Your task to perform on an android device: clear history in the chrome app Image 0: 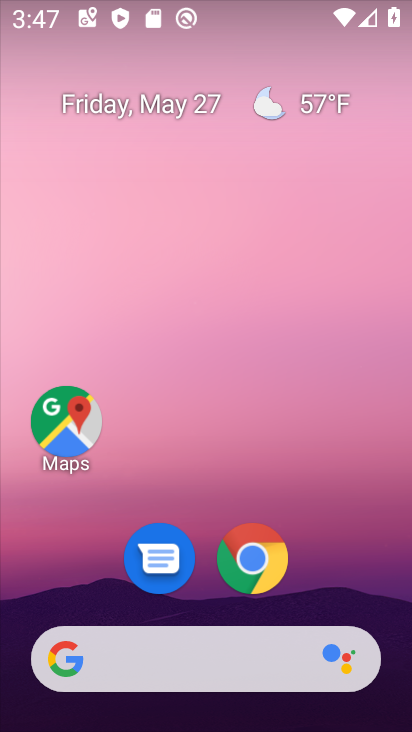
Step 0: click (242, 572)
Your task to perform on an android device: clear history in the chrome app Image 1: 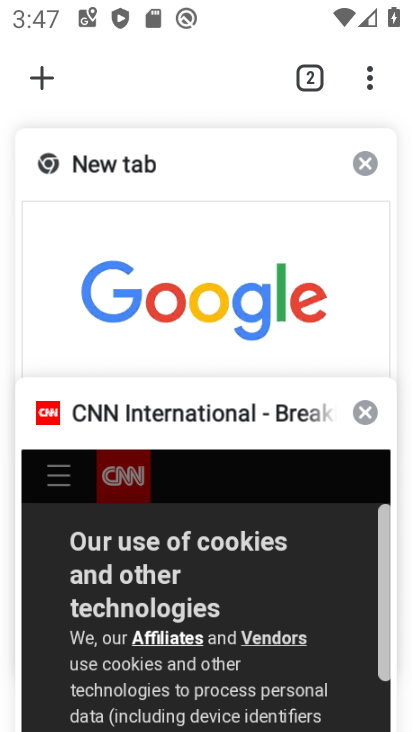
Step 1: click (372, 93)
Your task to perform on an android device: clear history in the chrome app Image 2: 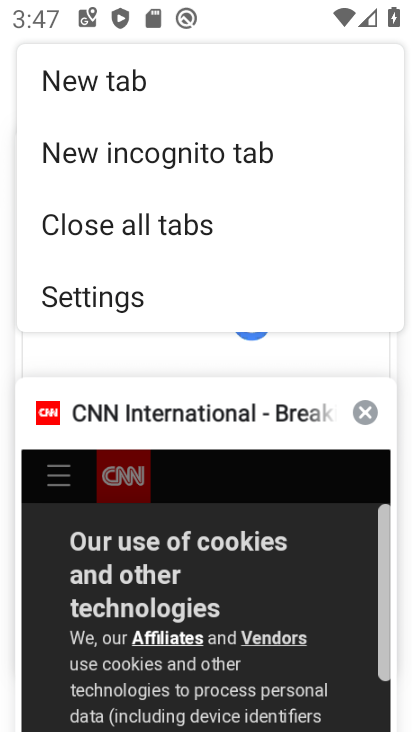
Step 2: click (111, 94)
Your task to perform on an android device: clear history in the chrome app Image 3: 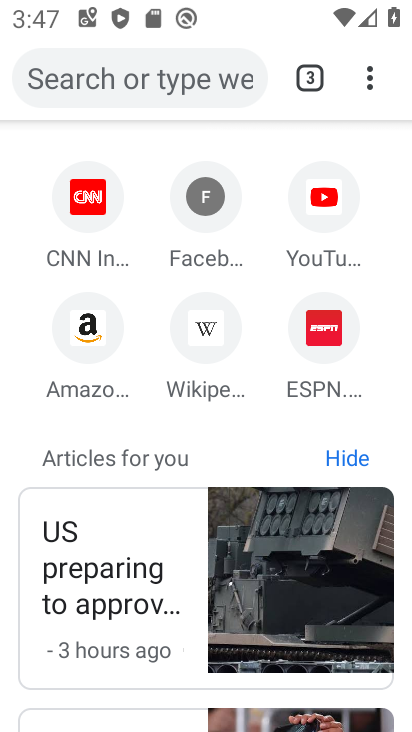
Step 3: click (384, 83)
Your task to perform on an android device: clear history in the chrome app Image 4: 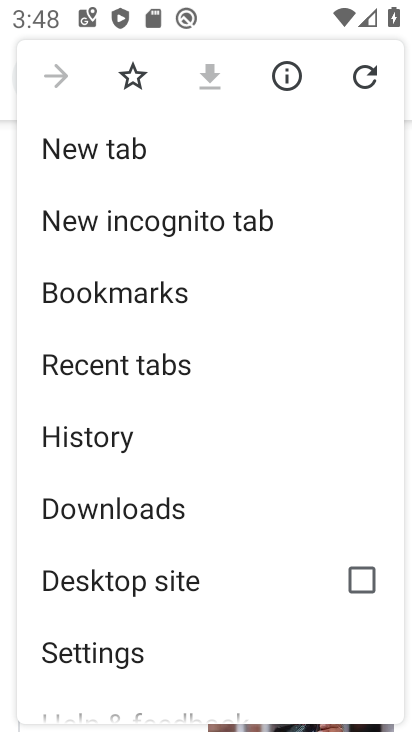
Step 4: click (173, 412)
Your task to perform on an android device: clear history in the chrome app Image 5: 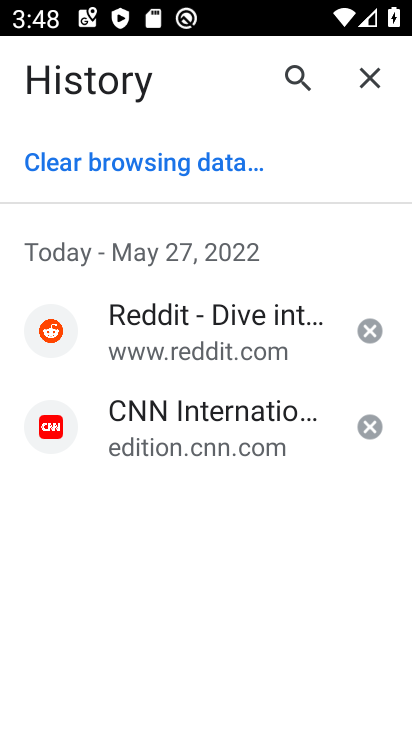
Step 5: click (188, 150)
Your task to perform on an android device: clear history in the chrome app Image 6: 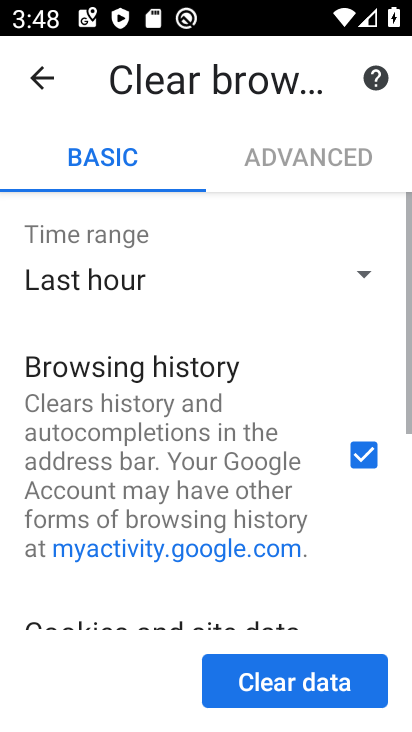
Step 6: click (307, 671)
Your task to perform on an android device: clear history in the chrome app Image 7: 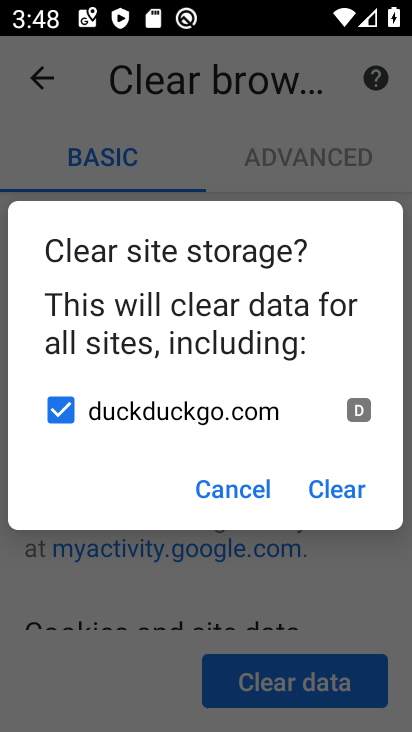
Step 7: click (320, 503)
Your task to perform on an android device: clear history in the chrome app Image 8: 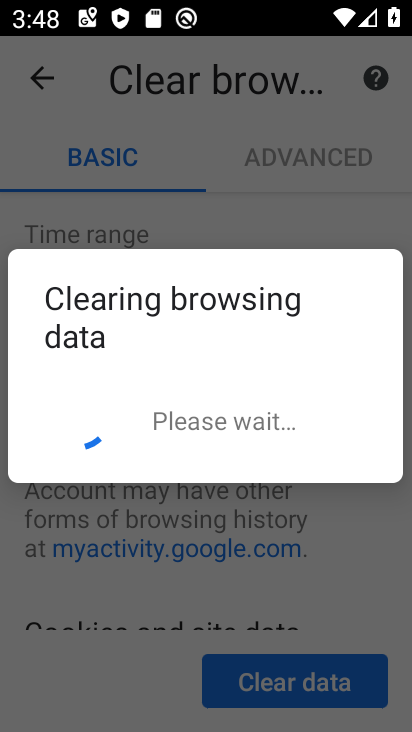
Step 8: task complete